Your task to perform on an android device: Open the map Image 0: 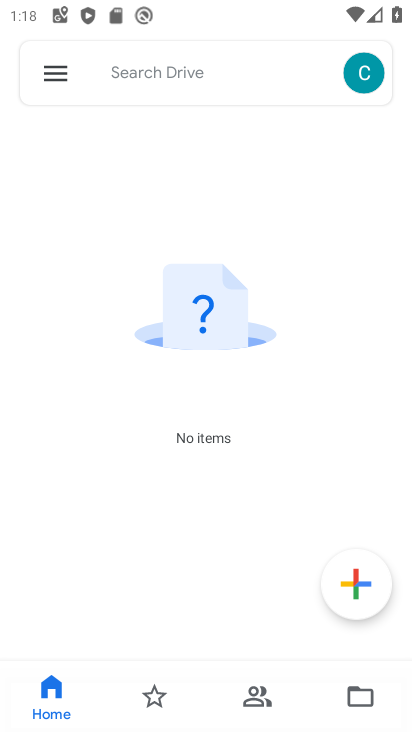
Step 0: press home button
Your task to perform on an android device: Open the map Image 1: 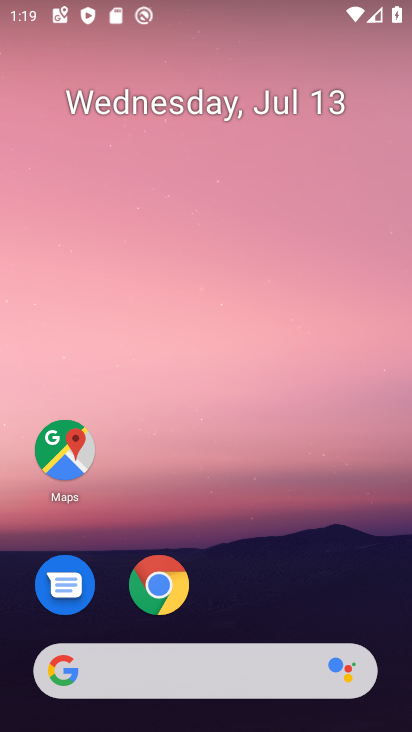
Step 1: click (62, 444)
Your task to perform on an android device: Open the map Image 2: 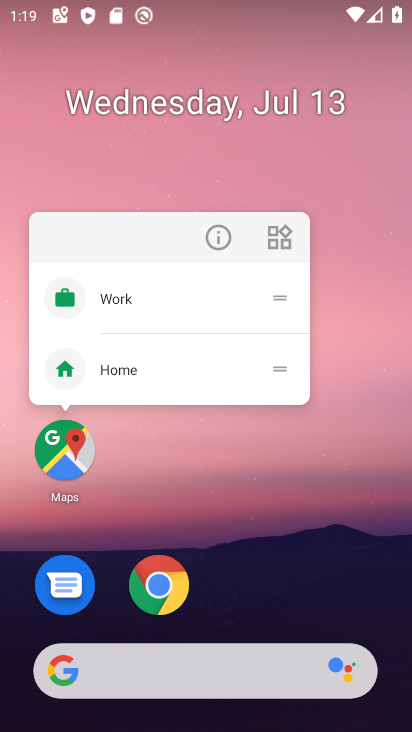
Step 2: click (62, 444)
Your task to perform on an android device: Open the map Image 3: 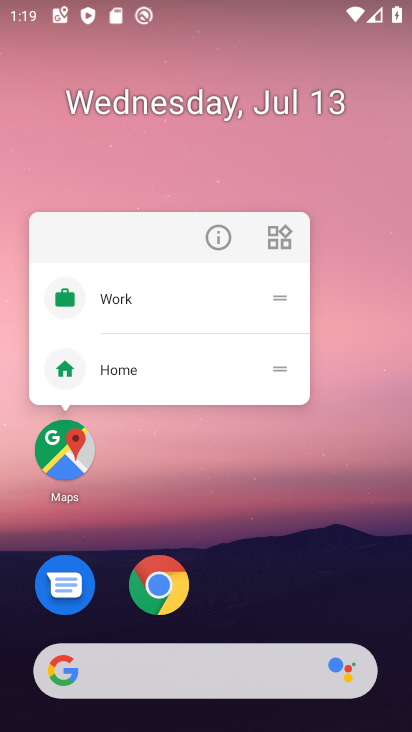
Step 3: click (66, 442)
Your task to perform on an android device: Open the map Image 4: 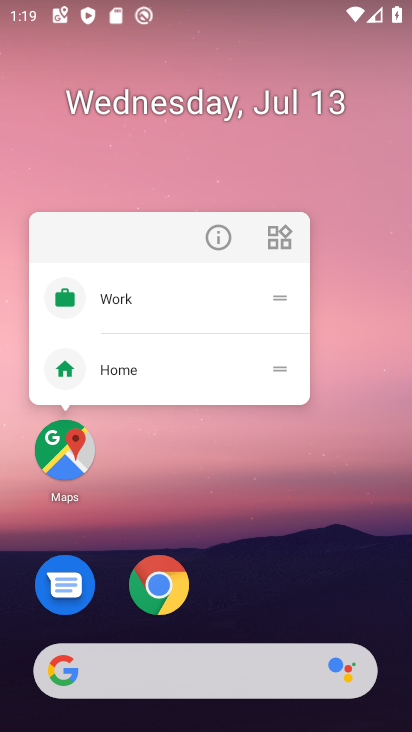
Step 4: click (66, 449)
Your task to perform on an android device: Open the map Image 5: 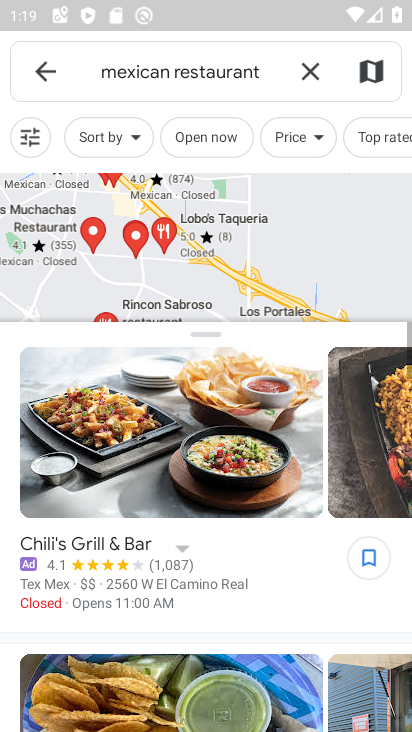
Step 5: click (45, 71)
Your task to perform on an android device: Open the map Image 6: 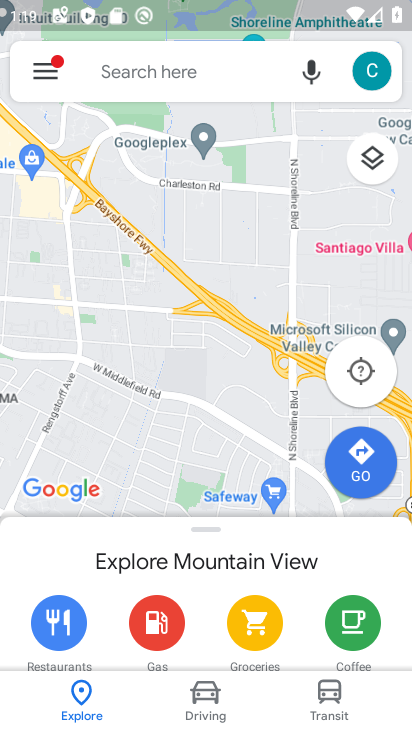
Step 6: task complete